Your task to perform on an android device: open app "Facebook Messenger" (install if not already installed) Image 0: 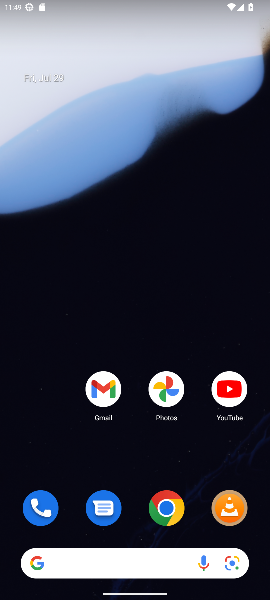
Step 0: drag from (141, 548) to (172, 102)
Your task to perform on an android device: open app "Facebook Messenger" (install if not already installed) Image 1: 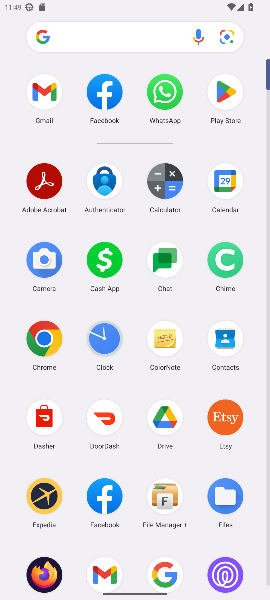
Step 1: click (227, 83)
Your task to perform on an android device: open app "Facebook Messenger" (install if not already installed) Image 2: 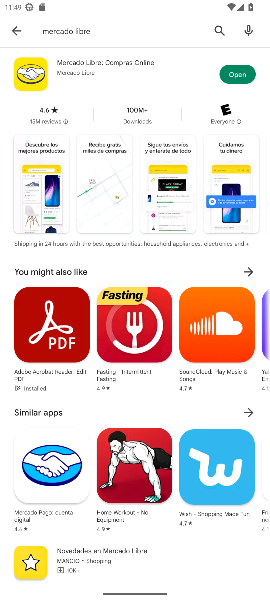
Step 2: click (218, 23)
Your task to perform on an android device: open app "Facebook Messenger" (install if not already installed) Image 3: 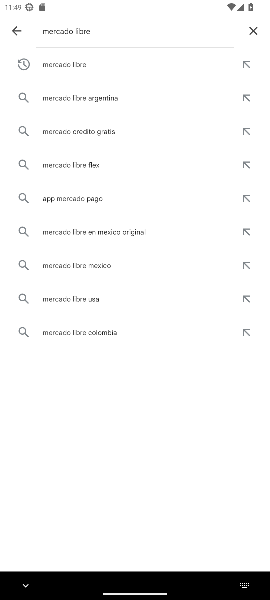
Step 3: click (256, 34)
Your task to perform on an android device: open app "Facebook Messenger" (install if not already installed) Image 4: 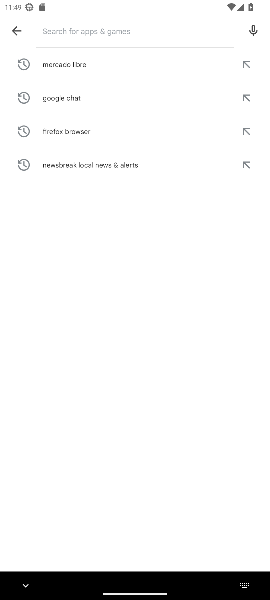
Step 4: type "facebook messenger"
Your task to perform on an android device: open app "Facebook Messenger" (install if not already installed) Image 5: 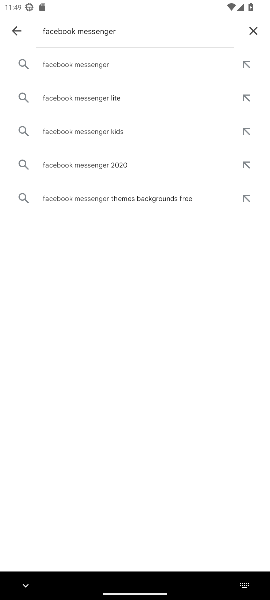
Step 5: click (103, 62)
Your task to perform on an android device: open app "Facebook Messenger" (install if not already installed) Image 6: 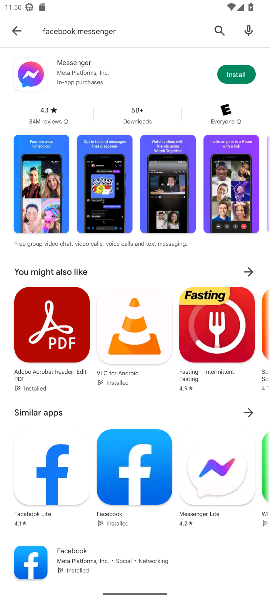
Step 6: click (249, 75)
Your task to perform on an android device: open app "Facebook Messenger" (install if not already installed) Image 7: 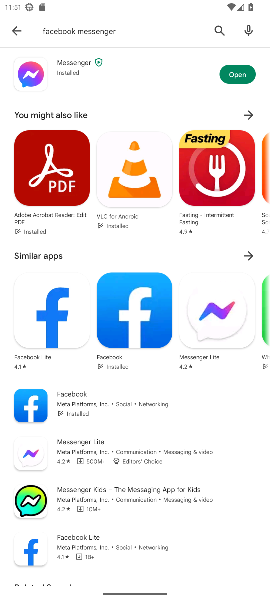
Step 7: click (239, 76)
Your task to perform on an android device: open app "Facebook Messenger" (install if not already installed) Image 8: 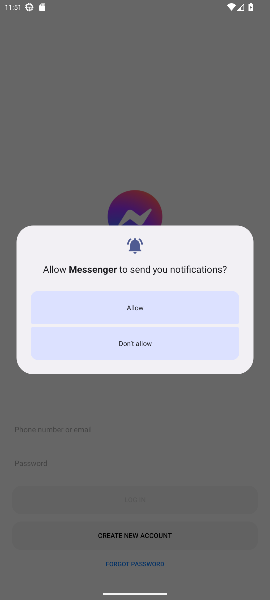
Step 8: task complete